Your task to perform on an android device: show emergency info Image 0: 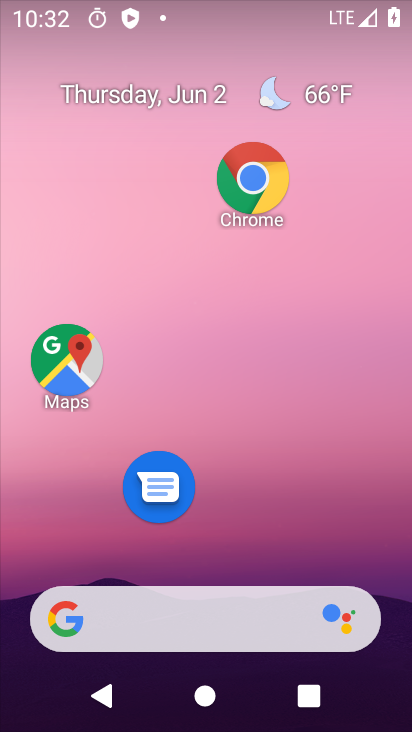
Step 0: drag from (240, 698) to (238, 145)
Your task to perform on an android device: show emergency info Image 1: 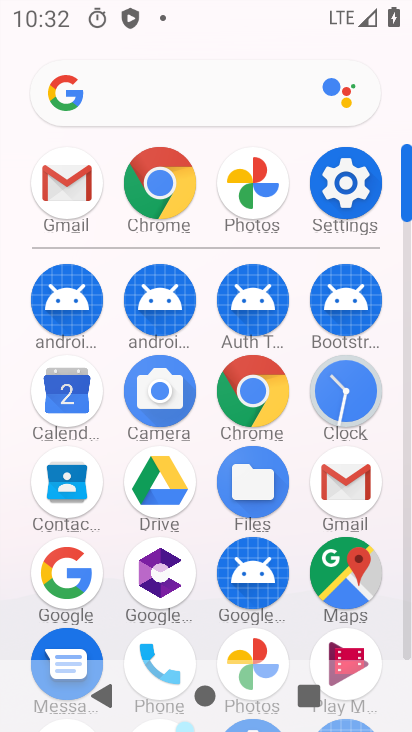
Step 1: click (344, 174)
Your task to perform on an android device: show emergency info Image 2: 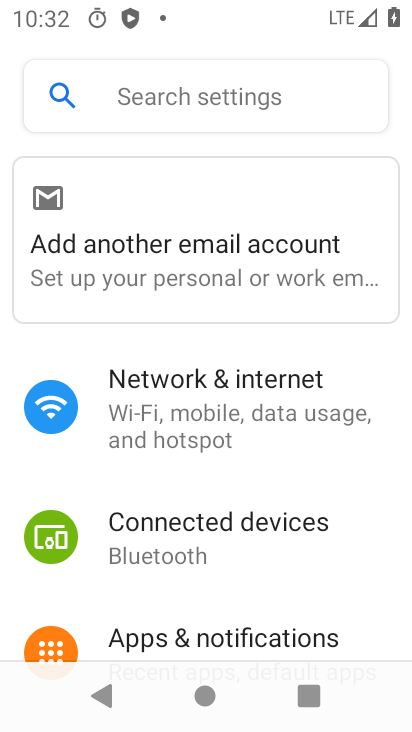
Step 2: drag from (185, 628) to (185, 470)
Your task to perform on an android device: show emergency info Image 3: 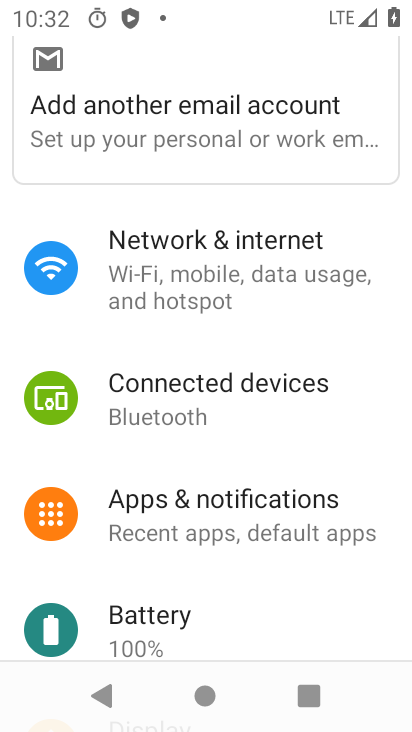
Step 3: drag from (201, 643) to (189, 174)
Your task to perform on an android device: show emergency info Image 4: 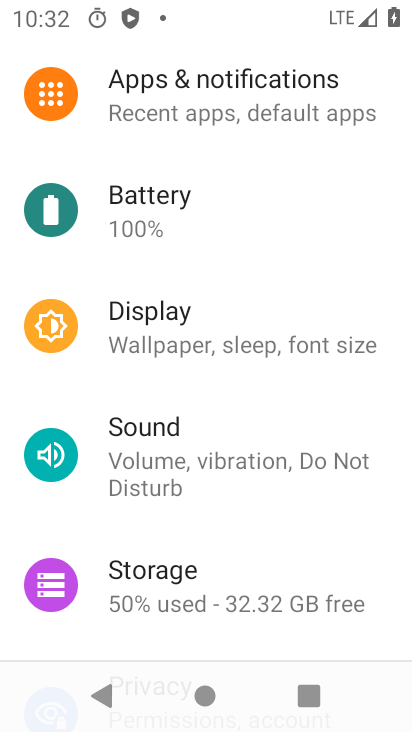
Step 4: drag from (224, 642) to (209, 225)
Your task to perform on an android device: show emergency info Image 5: 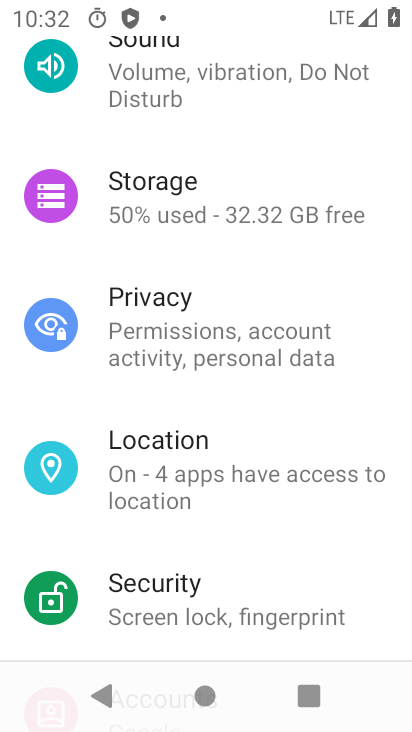
Step 5: drag from (242, 638) to (243, 249)
Your task to perform on an android device: show emergency info Image 6: 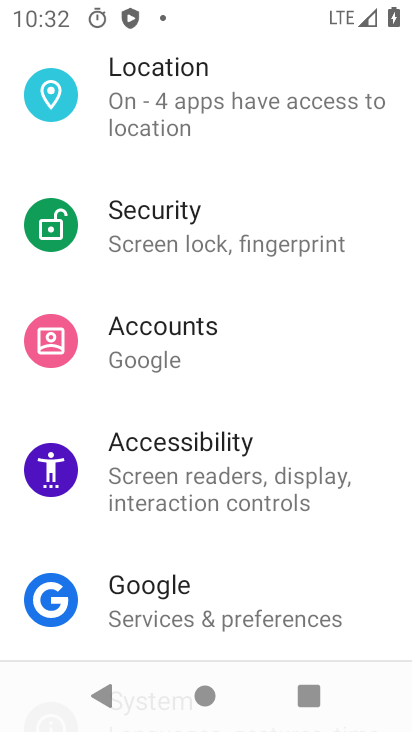
Step 6: drag from (273, 654) to (225, 213)
Your task to perform on an android device: show emergency info Image 7: 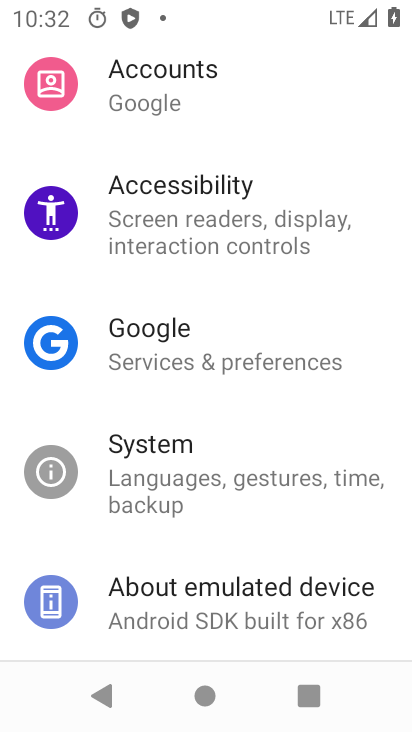
Step 7: drag from (220, 629) to (221, 218)
Your task to perform on an android device: show emergency info Image 8: 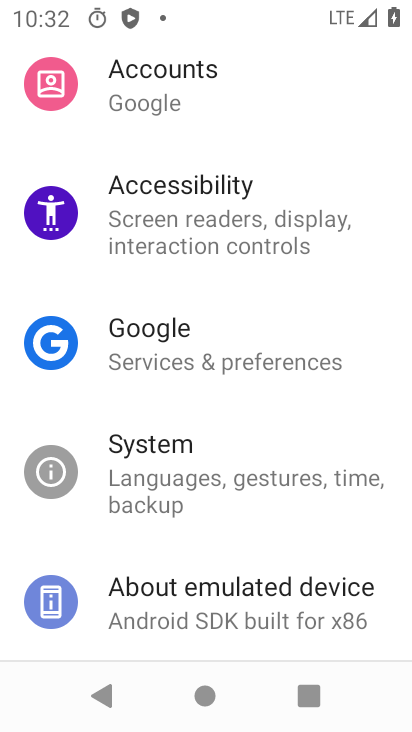
Step 8: click (278, 613)
Your task to perform on an android device: show emergency info Image 9: 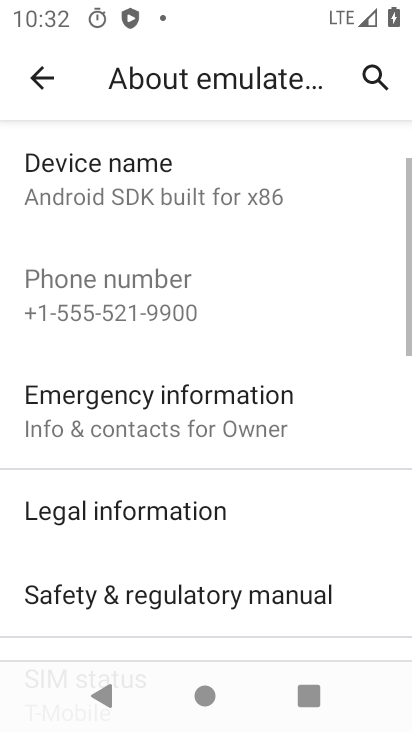
Step 9: click (165, 418)
Your task to perform on an android device: show emergency info Image 10: 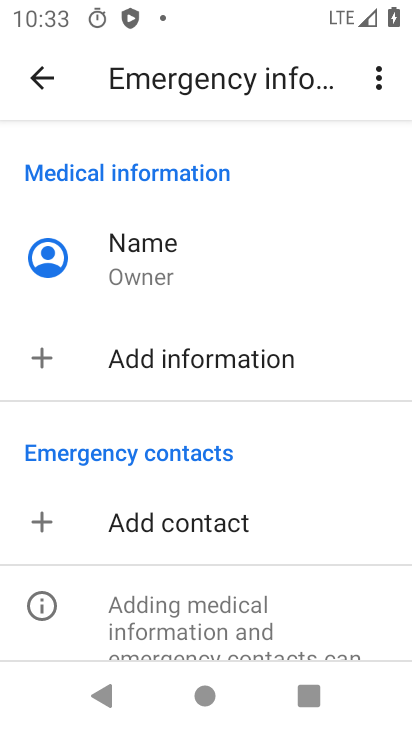
Step 10: task complete